Your task to perform on an android device: Find coffee shops on Maps Image 0: 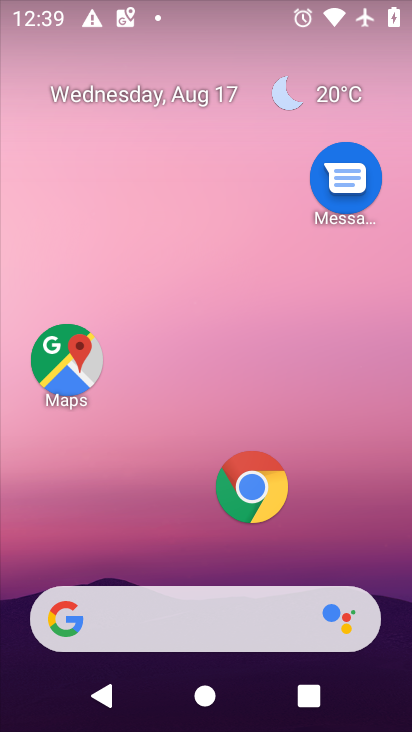
Step 0: click (74, 366)
Your task to perform on an android device: Find coffee shops on Maps Image 1: 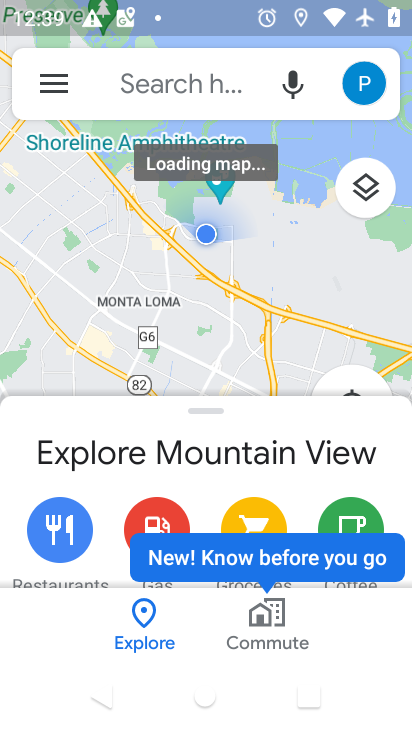
Step 1: click (166, 99)
Your task to perform on an android device: Find coffee shops on Maps Image 2: 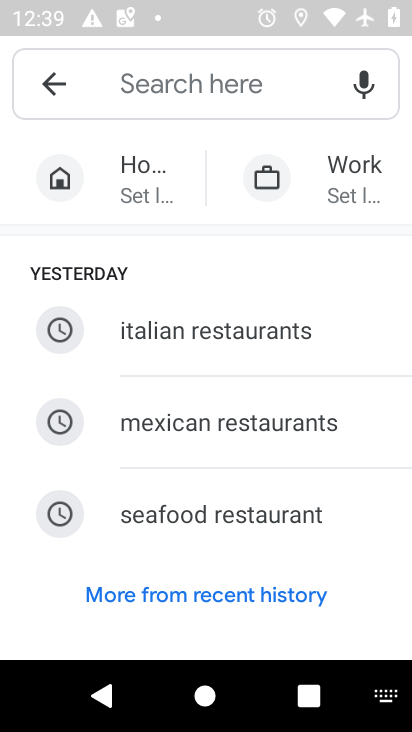
Step 2: drag from (211, 541) to (277, 267)
Your task to perform on an android device: Find coffee shops on Maps Image 3: 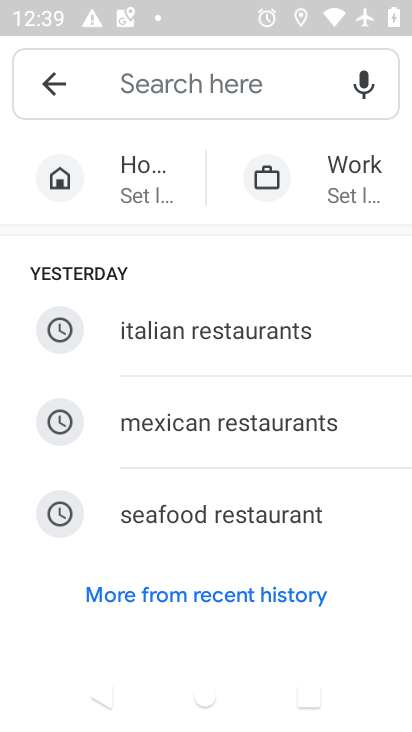
Step 3: click (198, 75)
Your task to perform on an android device: Find coffee shops on Maps Image 4: 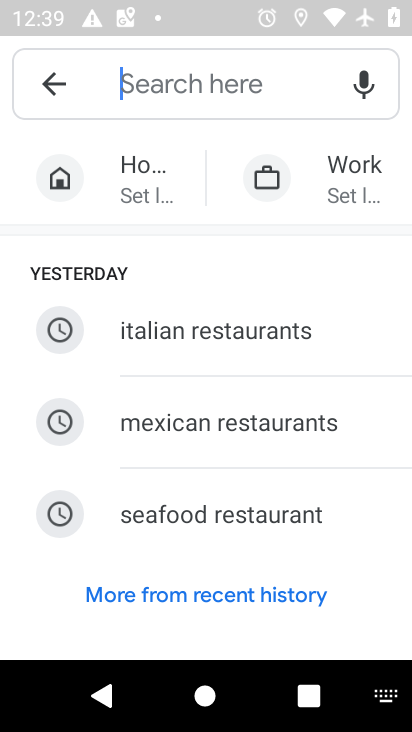
Step 4: type "coffee shops"
Your task to perform on an android device: Find coffee shops on Maps Image 5: 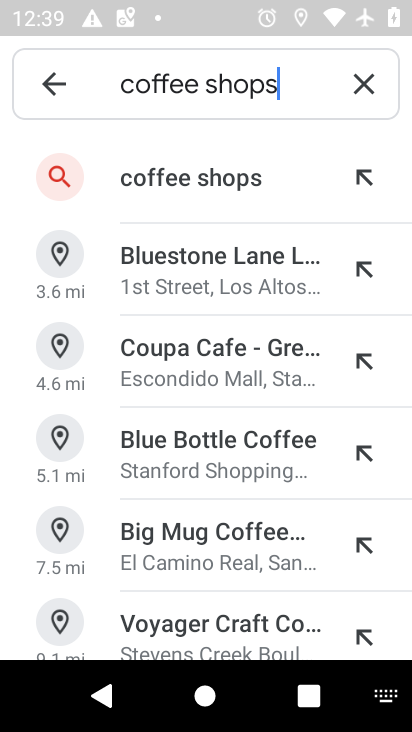
Step 5: drag from (371, 6) to (307, 569)
Your task to perform on an android device: Find coffee shops on Maps Image 6: 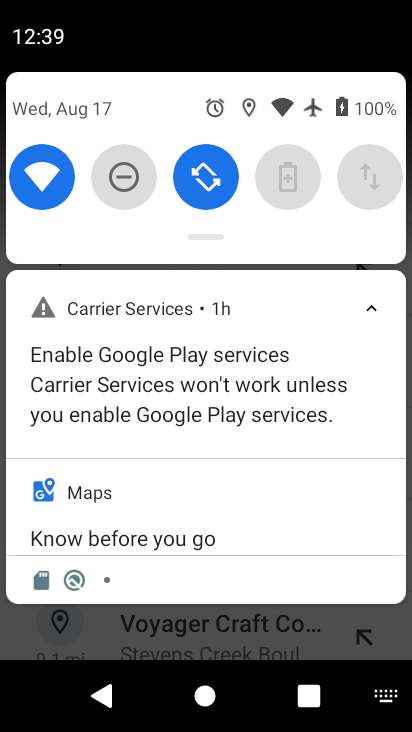
Step 6: drag from (221, 229) to (220, 668)
Your task to perform on an android device: Find coffee shops on Maps Image 7: 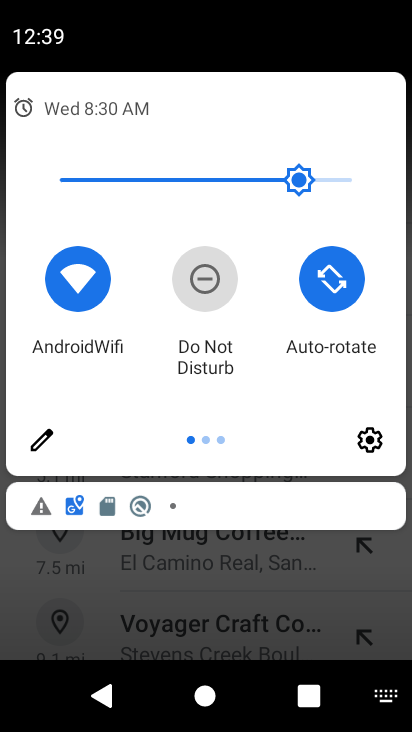
Step 7: drag from (341, 292) to (2, 333)
Your task to perform on an android device: Find coffee shops on Maps Image 8: 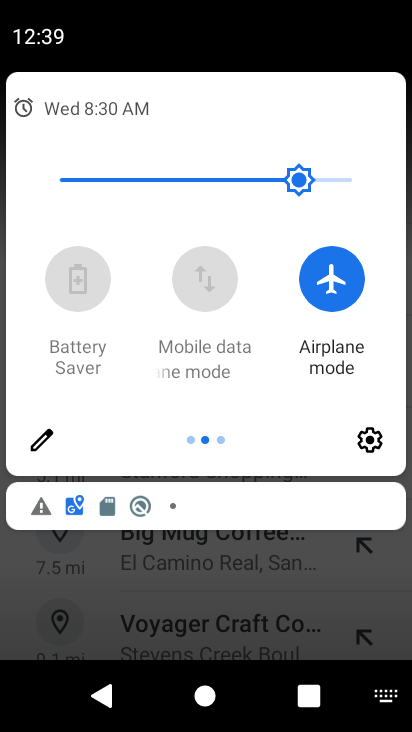
Step 8: click (342, 272)
Your task to perform on an android device: Find coffee shops on Maps Image 9: 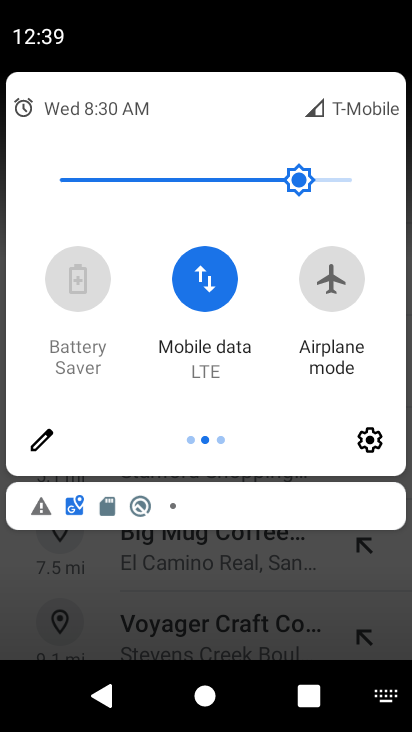
Step 9: click (202, 557)
Your task to perform on an android device: Find coffee shops on Maps Image 10: 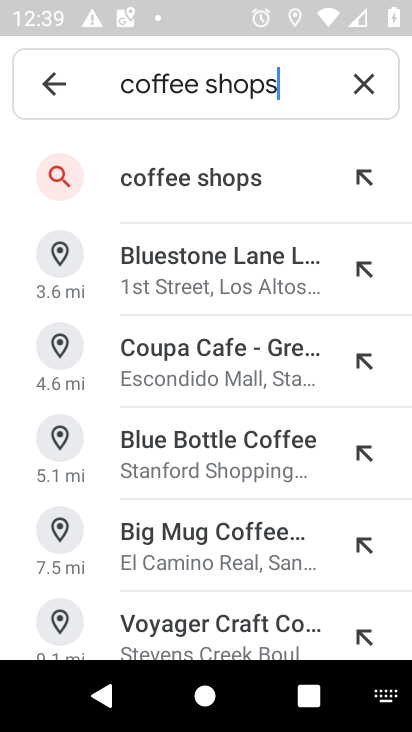
Step 10: click (176, 181)
Your task to perform on an android device: Find coffee shops on Maps Image 11: 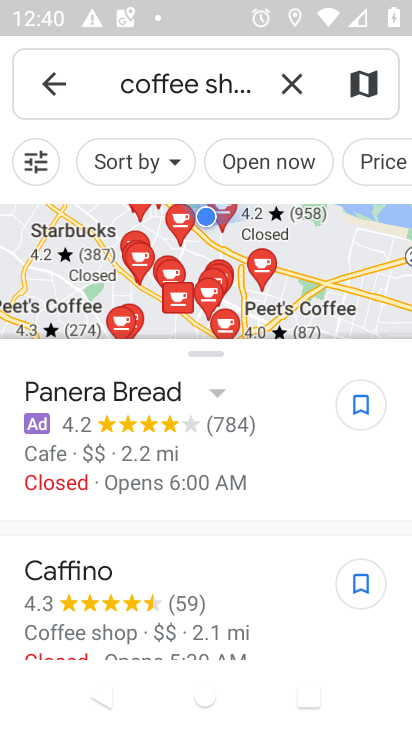
Step 11: task complete